Your task to perform on an android device: Open CNN.com Image 0: 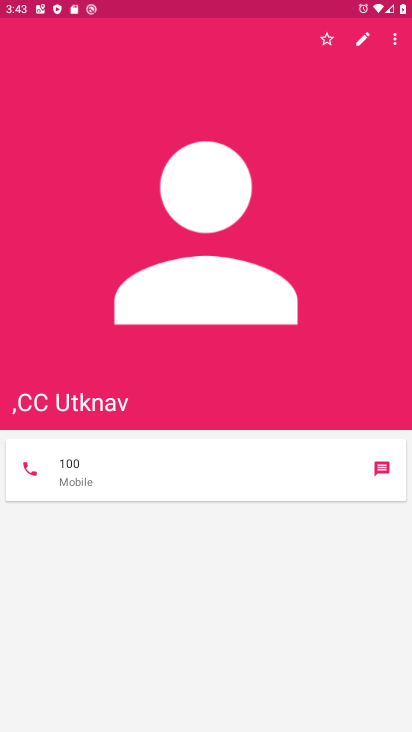
Step 0: press home button
Your task to perform on an android device: Open CNN.com Image 1: 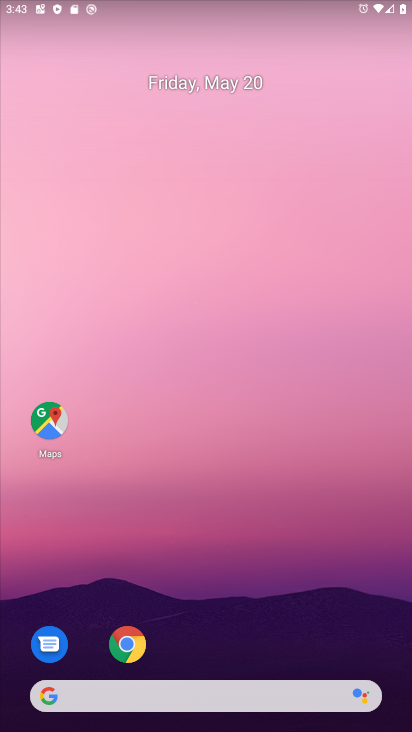
Step 1: click (217, 689)
Your task to perform on an android device: Open CNN.com Image 2: 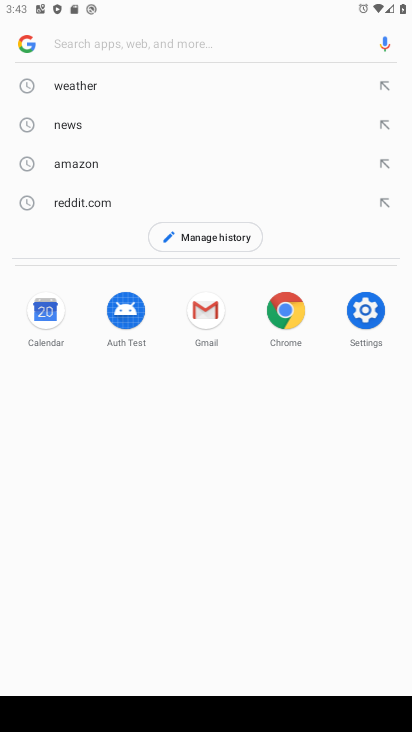
Step 2: type "cnn.com"
Your task to perform on an android device: Open CNN.com Image 3: 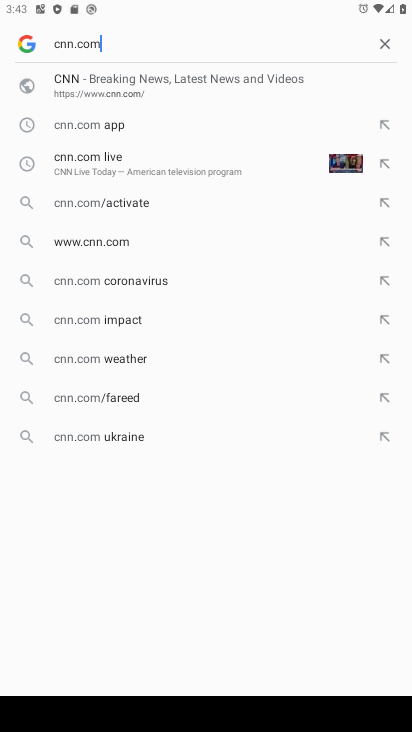
Step 3: click (202, 82)
Your task to perform on an android device: Open CNN.com Image 4: 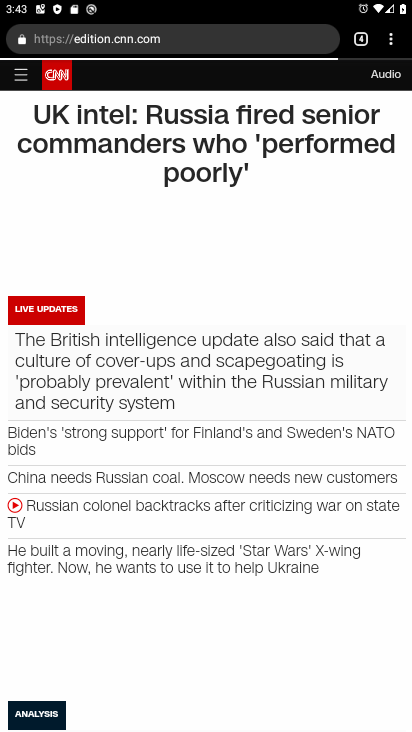
Step 4: task complete